Your task to perform on an android device: Open Google Chrome Image 0: 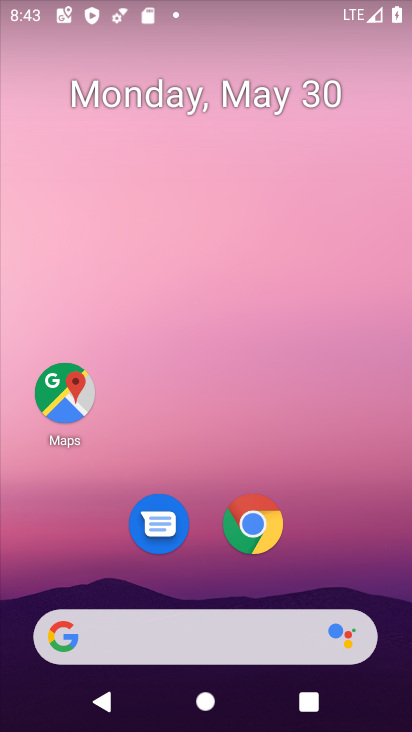
Step 0: click (251, 646)
Your task to perform on an android device: Open Google Chrome Image 1: 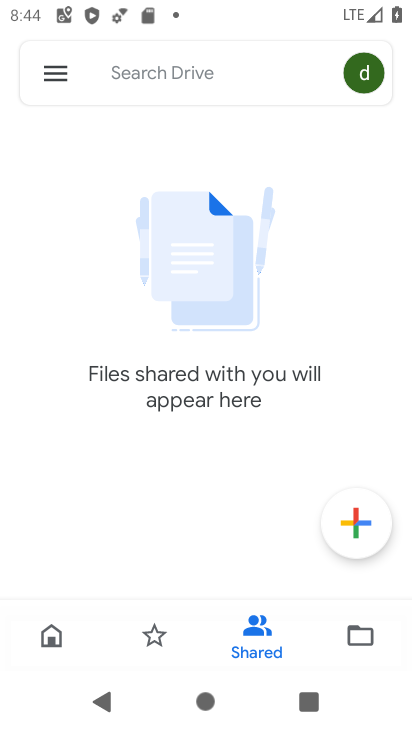
Step 1: press back button
Your task to perform on an android device: Open Google Chrome Image 2: 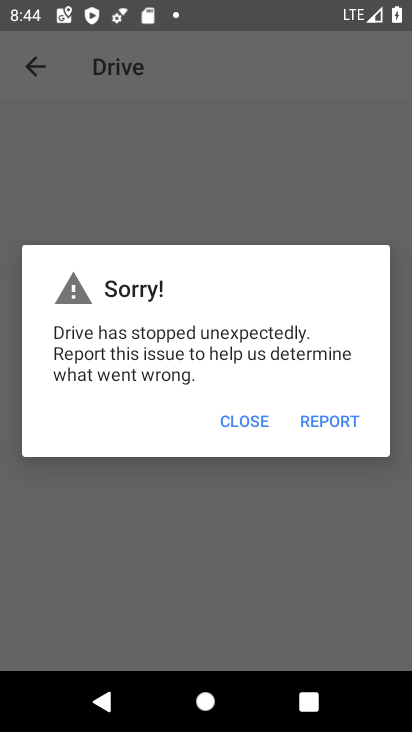
Step 2: press home button
Your task to perform on an android device: Open Google Chrome Image 3: 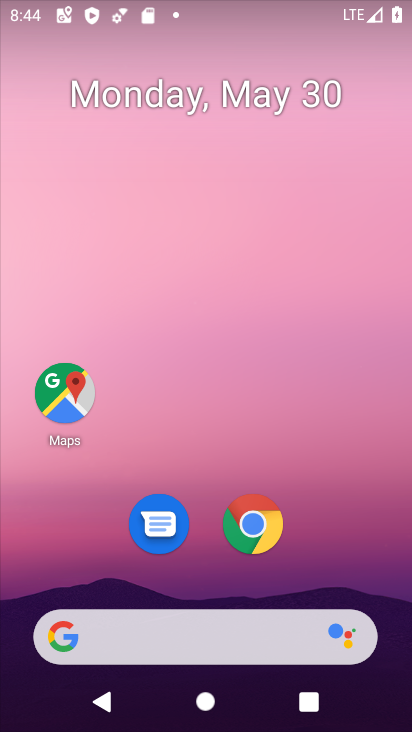
Step 3: click (264, 520)
Your task to perform on an android device: Open Google Chrome Image 4: 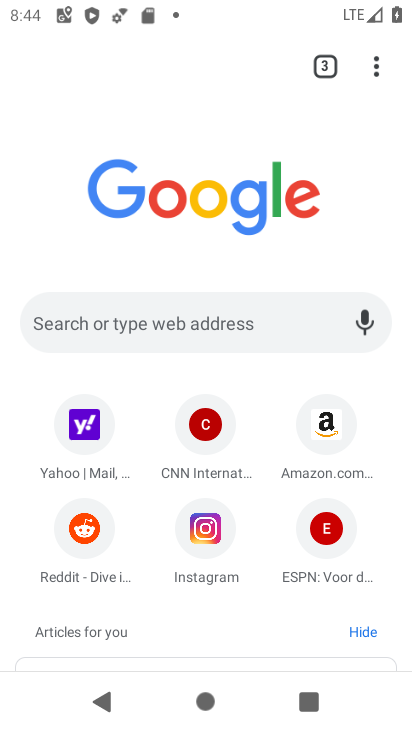
Step 4: task complete